Your task to perform on an android device: Open the calendar and show me this week's events? Image 0: 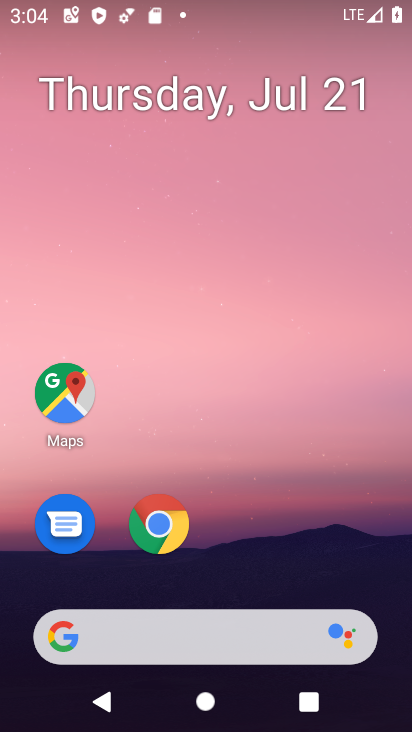
Step 0: drag from (273, 566) to (303, 17)
Your task to perform on an android device: Open the calendar and show me this week's events? Image 1: 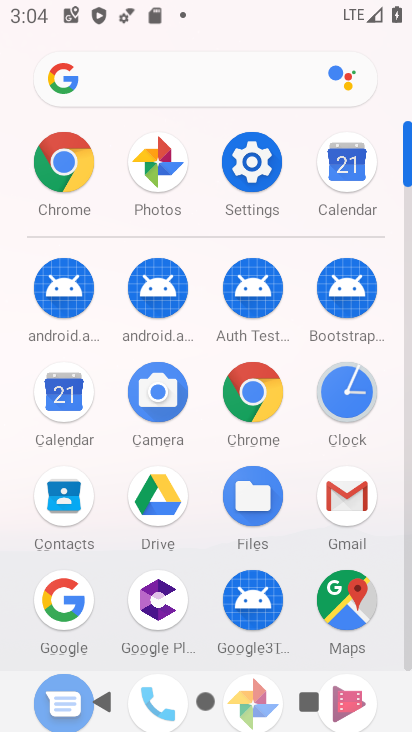
Step 1: click (349, 162)
Your task to perform on an android device: Open the calendar and show me this week's events? Image 2: 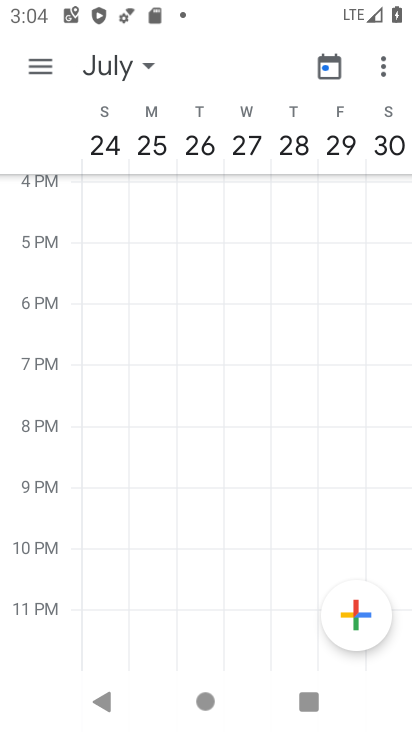
Step 2: task complete